Your task to perform on an android device: turn off data saver in the chrome app Image 0: 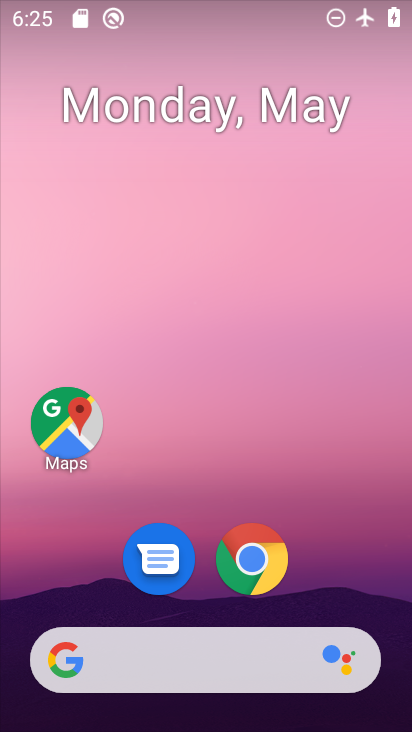
Step 0: click (258, 569)
Your task to perform on an android device: turn off data saver in the chrome app Image 1: 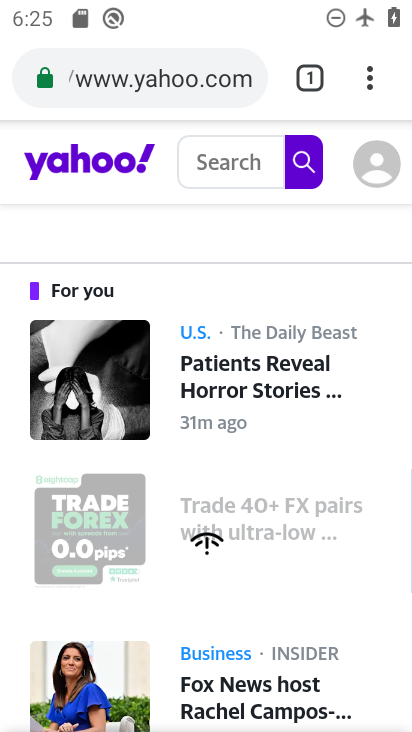
Step 1: click (368, 74)
Your task to perform on an android device: turn off data saver in the chrome app Image 2: 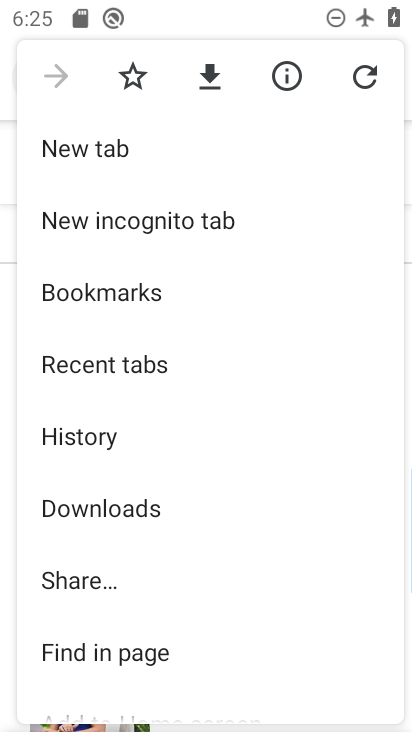
Step 2: drag from (241, 566) to (163, 224)
Your task to perform on an android device: turn off data saver in the chrome app Image 3: 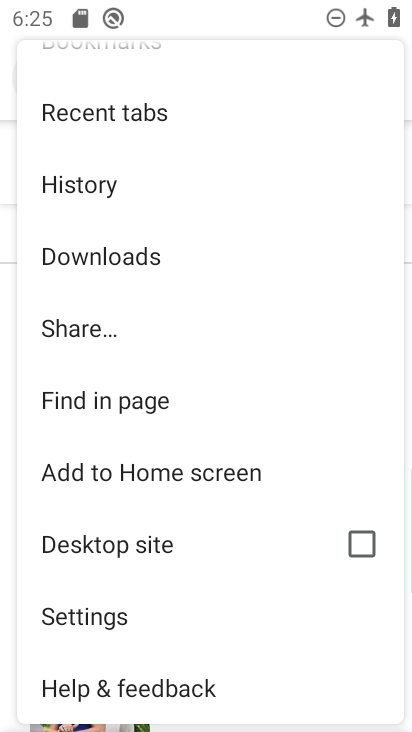
Step 3: click (106, 620)
Your task to perform on an android device: turn off data saver in the chrome app Image 4: 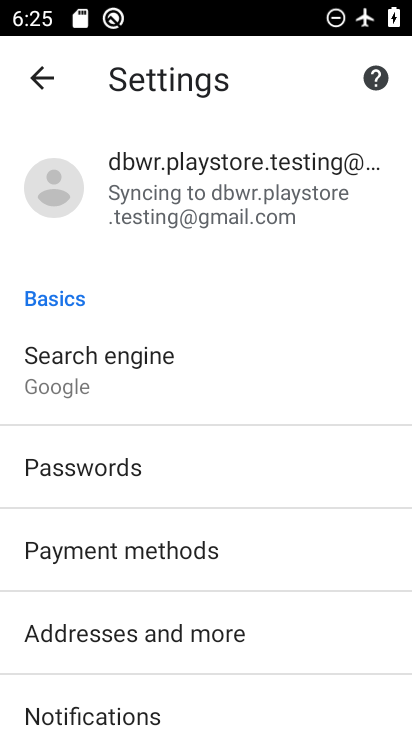
Step 4: drag from (244, 599) to (152, 201)
Your task to perform on an android device: turn off data saver in the chrome app Image 5: 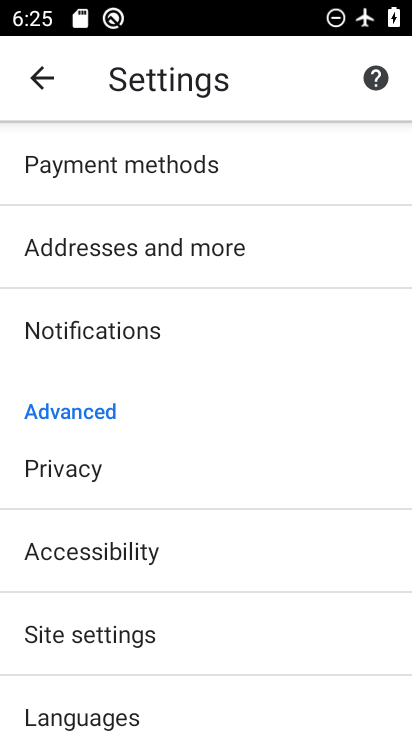
Step 5: drag from (215, 642) to (141, 288)
Your task to perform on an android device: turn off data saver in the chrome app Image 6: 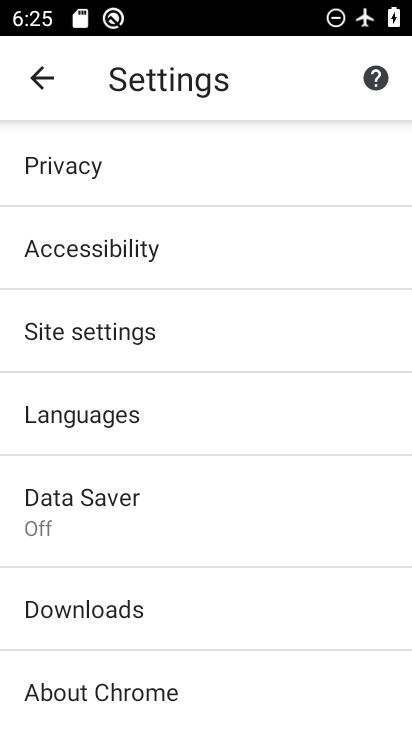
Step 6: click (100, 506)
Your task to perform on an android device: turn off data saver in the chrome app Image 7: 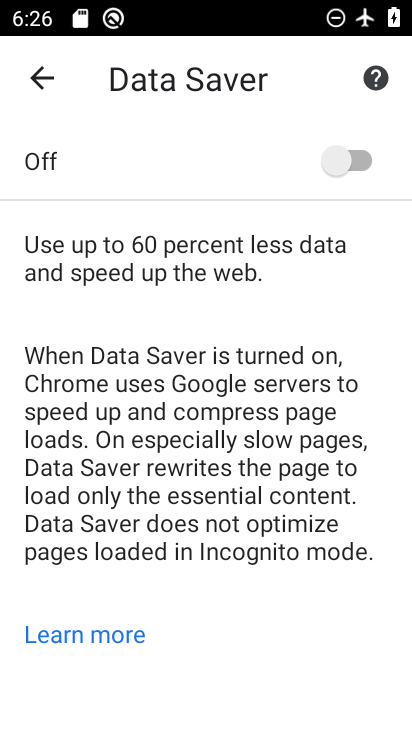
Step 7: task complete